Your task to perform on an android device: turn pop-ups off in chrome Image 0: 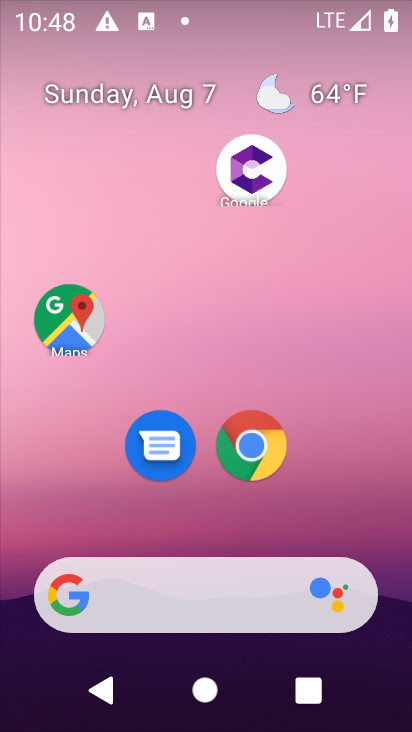
Step 0: press home button
Your task to perform on an android device: turn pop-ups off in chrome Image 1: 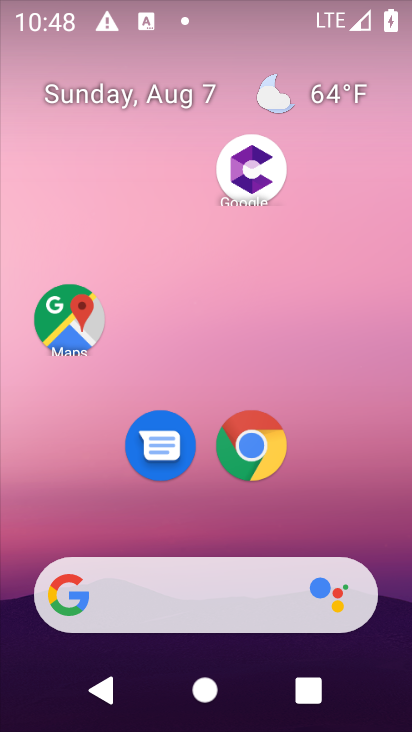
Step 1: click (251, 446)
Your task to perform on an android device: turn pop-ups off in chrome Image 2: 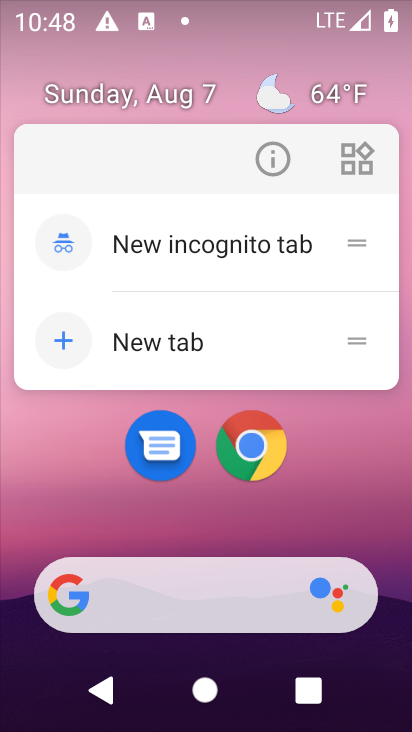
Step 2: click (297, 503)
Your task to perform on an android device: turn pop-ups off in chrome Image 3: 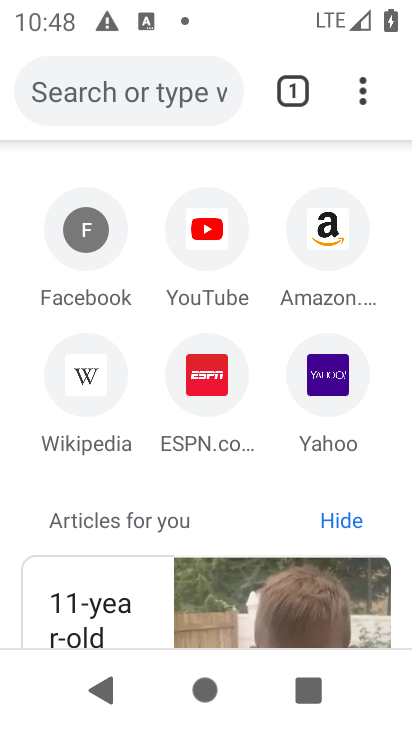
Step 3: click (368, 86)
Your task to perform on an android device: turn pop-ups off in chrome Image 4: 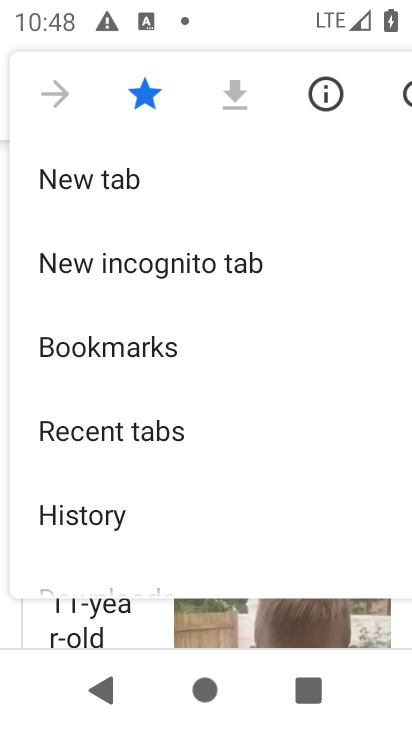
Step 4: drag from (185, 546) to (220, 107)
Your task to perform on an android device: turn pop-ups off in chrome Image 5: 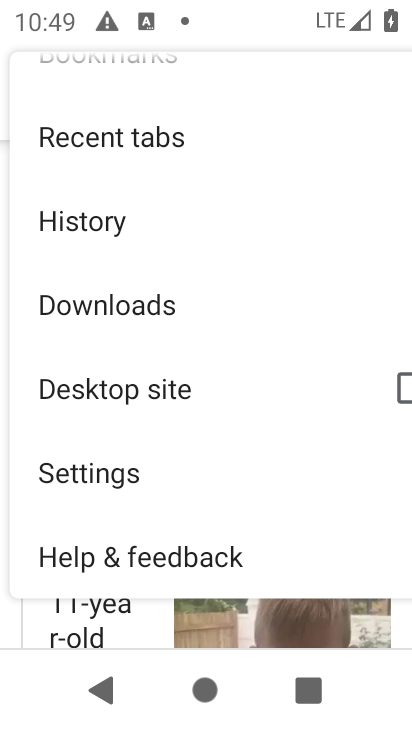
Step 5: click (150, 471)
Your task to perform on an android device: turn pop-ups off in chrome Image 6: 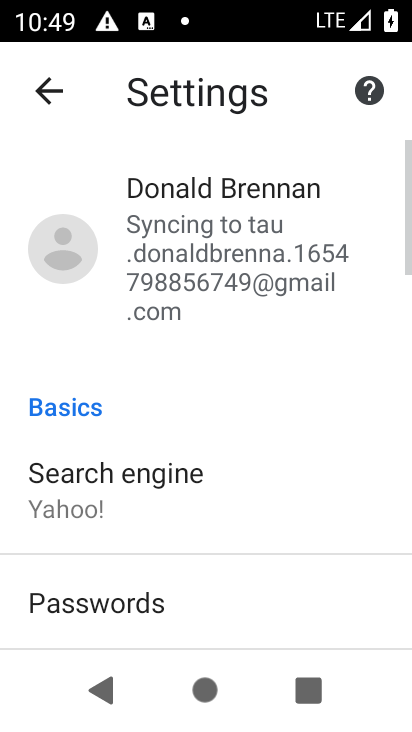
Step 6: drag from (239, 627) to (257, 117)
Your task to perform on an android device: turn pop-ups off in chrome Image 7: 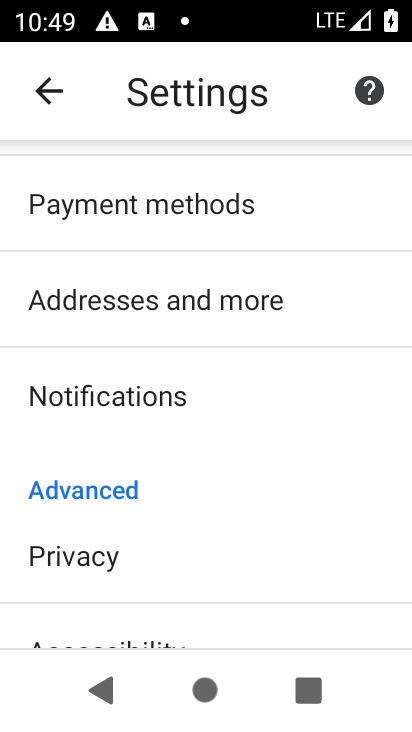
Step 7: drag from (222, 598) to (218, 161)
Your task to perform on an android device: turn pop-ups off in chrome Image 8: 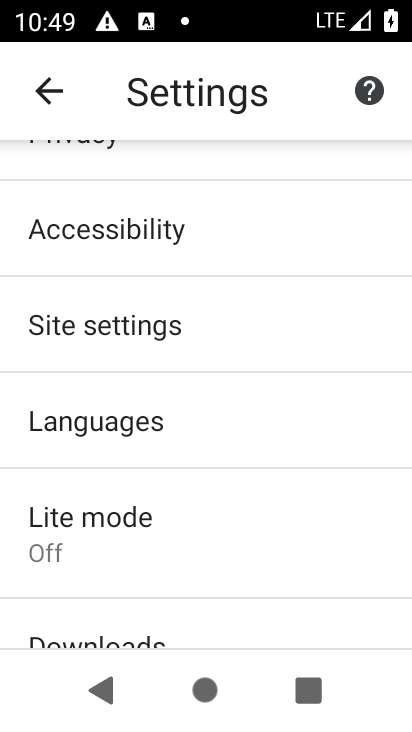
Step 8: click (201, 329)
Your task to perform on an android device: turn pop-ups off in chrome Image 9: 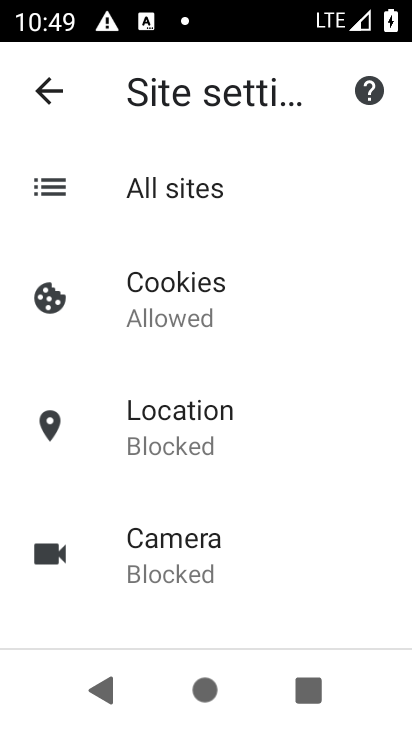
Step 9: drag from (244, 582) to (261, 172)
Your task to perform on an android device: turn pop-ups off in chrome Image 10: 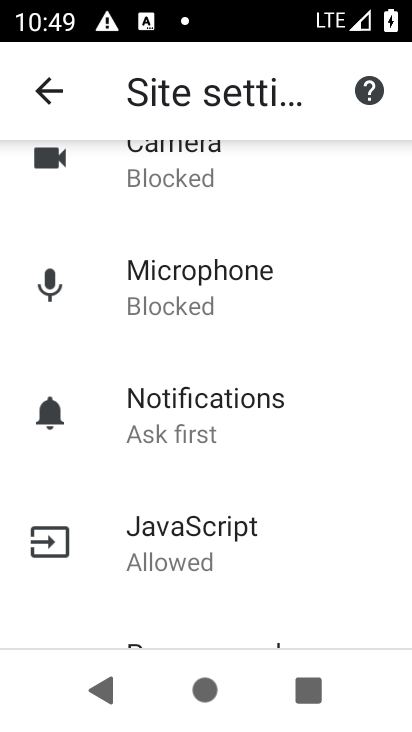
Step 10: drag from (244, 595) to (257, 226)
Your task to perform on an android device: turn pop-ups off in chrome Image 11: 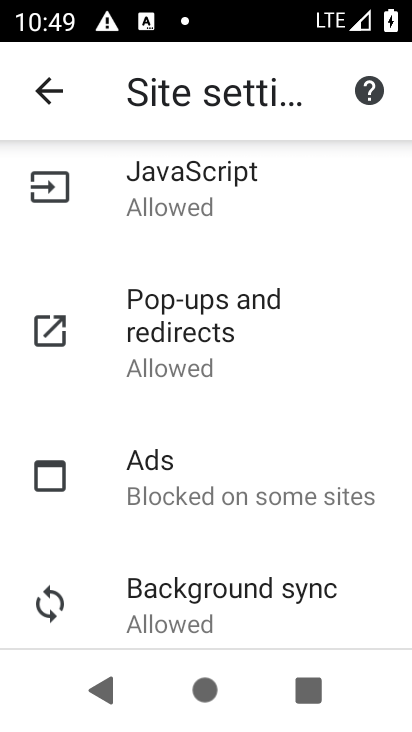
Step 11: click (253, 316)
Your task to perform on an android device: turn pop-ups off in chrome Image 12: 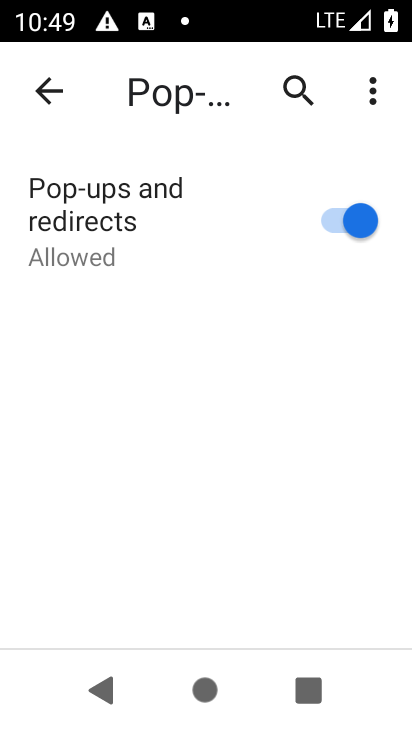
Step 12: click (339, 215)
Your task to perform on an android device: turn pop-ups off in chrome Image 13: 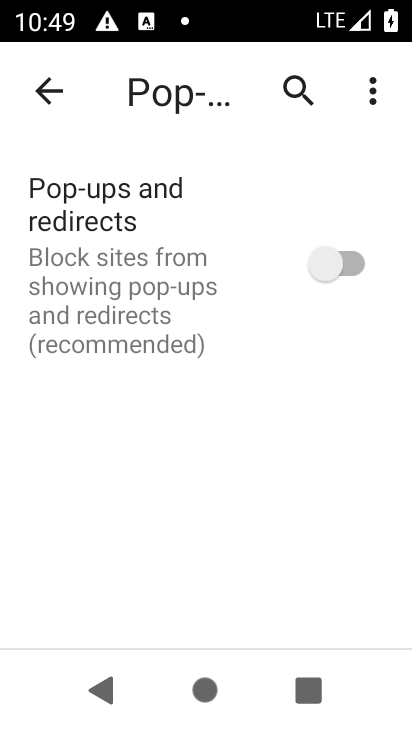
Step 13: task complete